Your task to perform on an android device: change the clock display to show seconds Image 0: 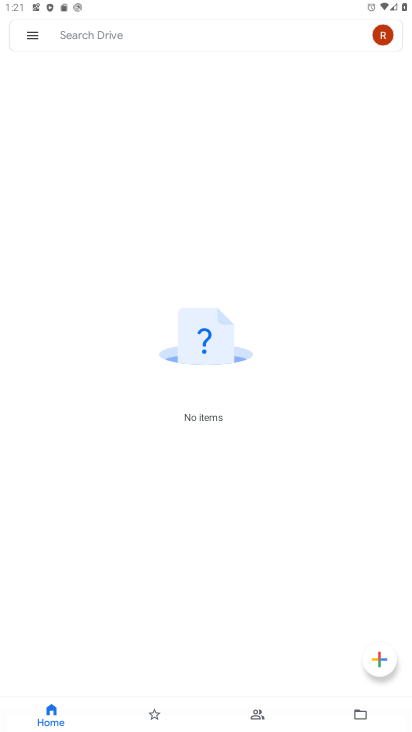
Step 0: drag from (247, 579) to (156, 201)
Your task to perform on an android device: change the clock display to show seconds Image 1: 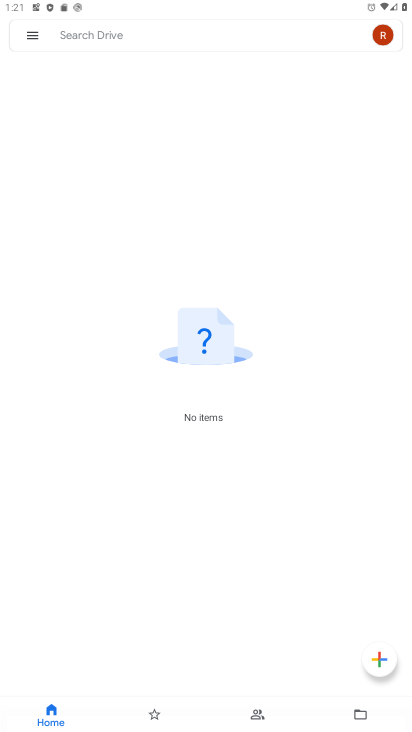
Step 1: press home button
Your task to perform on an android device: change the clock display to show seconds Image 2: 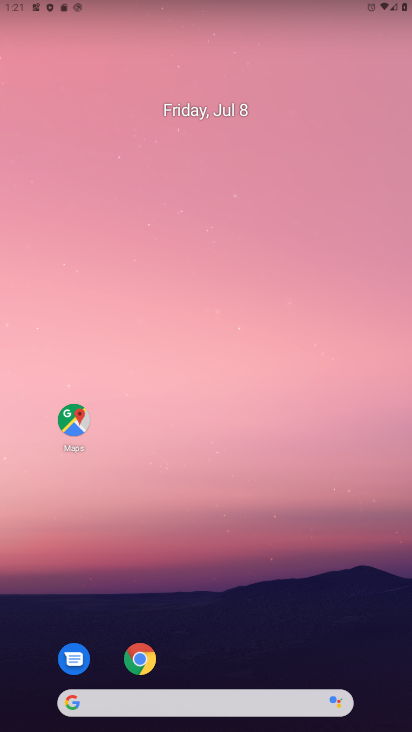
Step 2: drag from (204, 531) to (79, 72)
Your task to perform on an android device: change the clock display to show seconds Image 3: 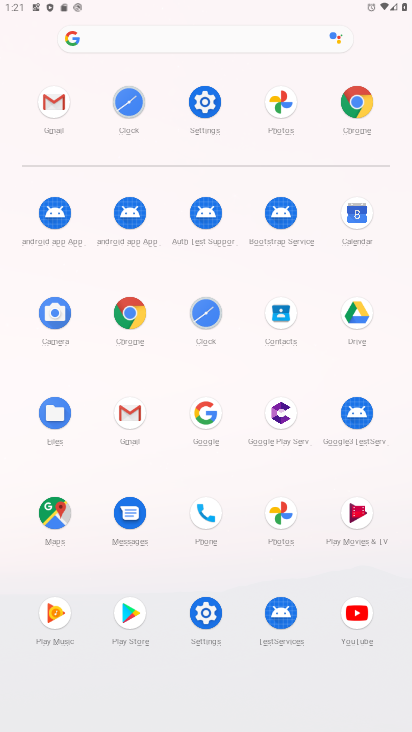
Step 3: click (208, 318)
Your task to perform on an android device: change the clock display to show seconds Image 4: 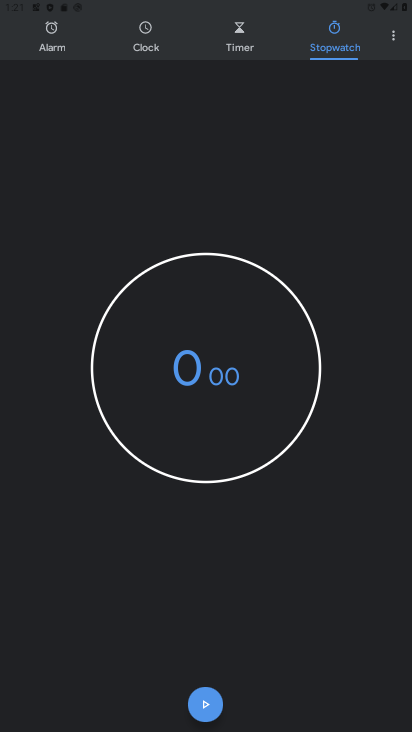
Step 4: click (398, 36)
Your task to perform on an android device: change the clock display to show seconds Image 5: 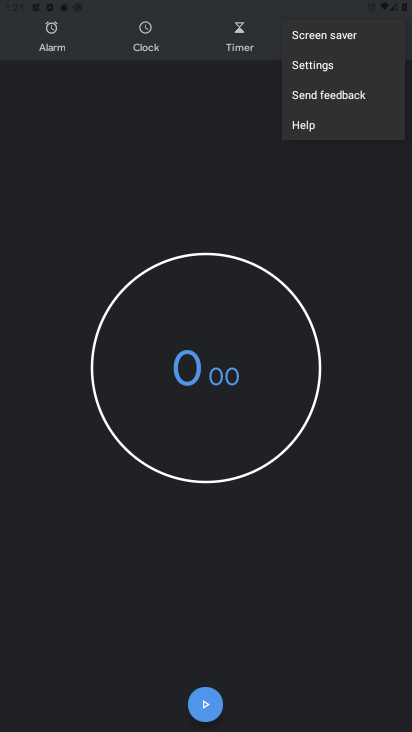
Step 5: click (319, 66)
Your task to perform on an android device: change the clock display to show seconds Image 6: 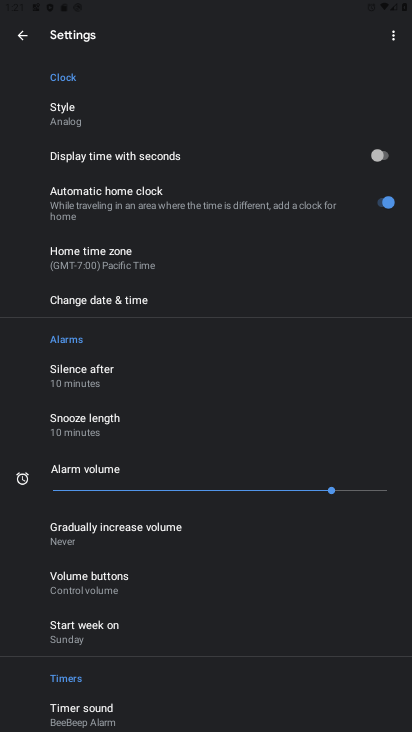
Step 6: click (378, 160)
Your task to perform on an android device: change the clock display to show seconds Image 7: 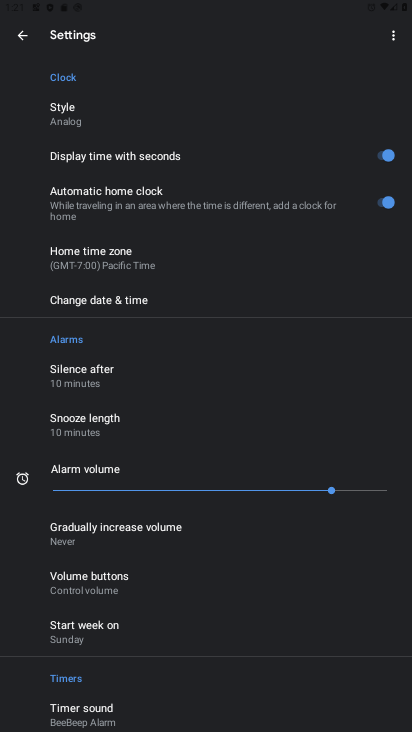
Step 7: task complete